Your task to perform on an android device: Go to Google Image 0: 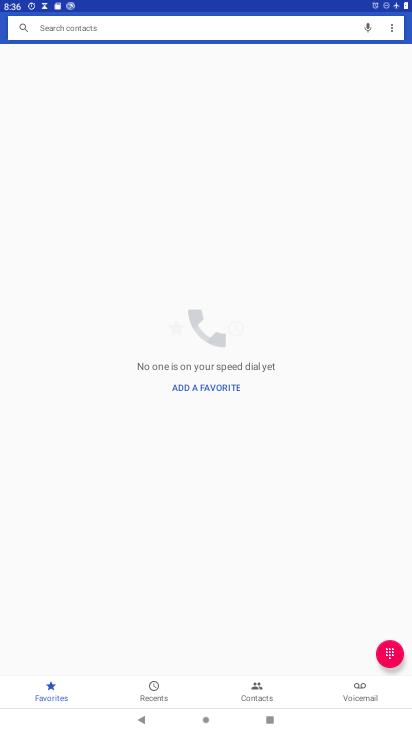
Step 0: press home button
Your task to perform on an android device: Go to Google Image 1: 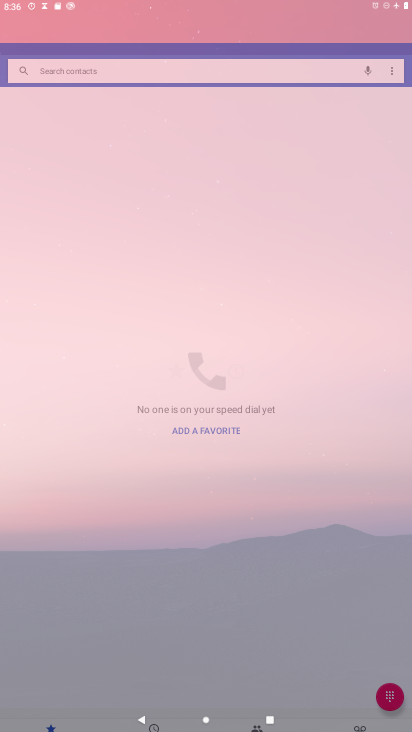
Step 1: drag from (372, 652) to (199, 41)
Your task to perform on an android device: Go to Google Image 2: 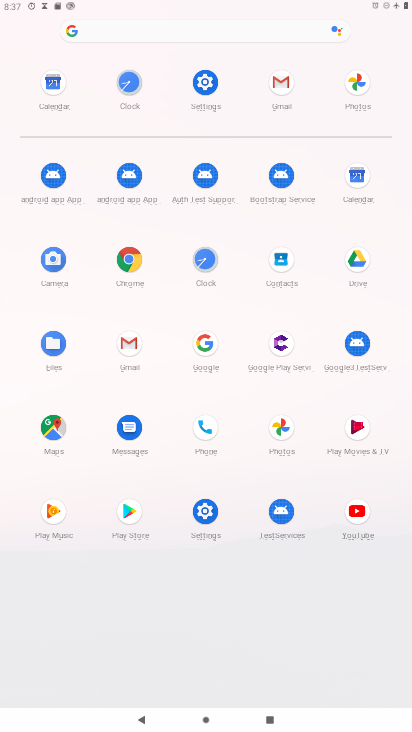
Step 2: click (204, 341)
Your task to perform on an android device: Go to Google Image 3: 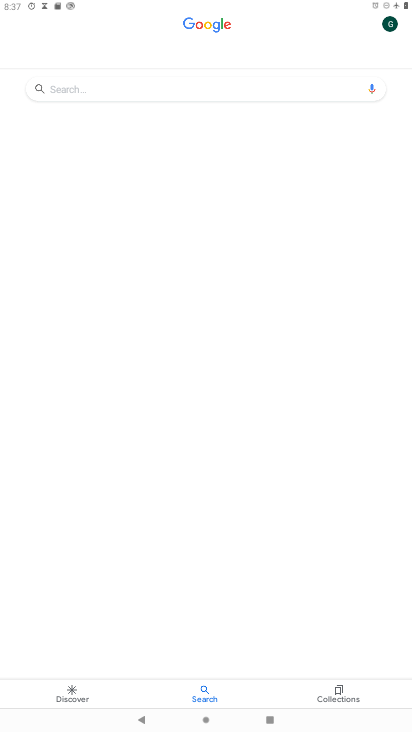
Step 3: task complete